Your task to perform on an android device: Show me the alarms in the clock app Image 0: 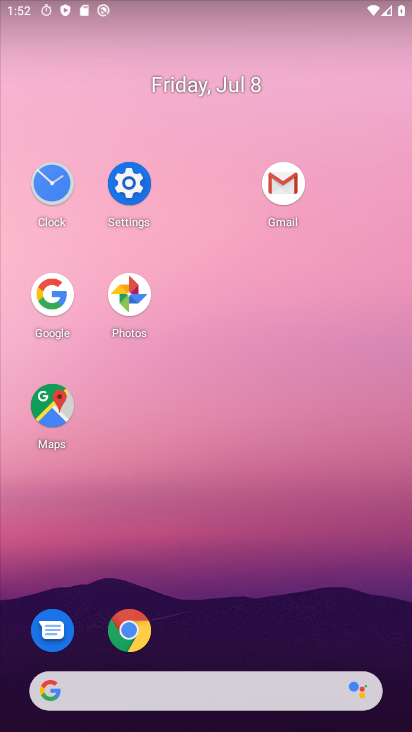
Step 0: click (41, 184)
Your task to perform on an android device: Show me the alarms in the clock app Image 1: 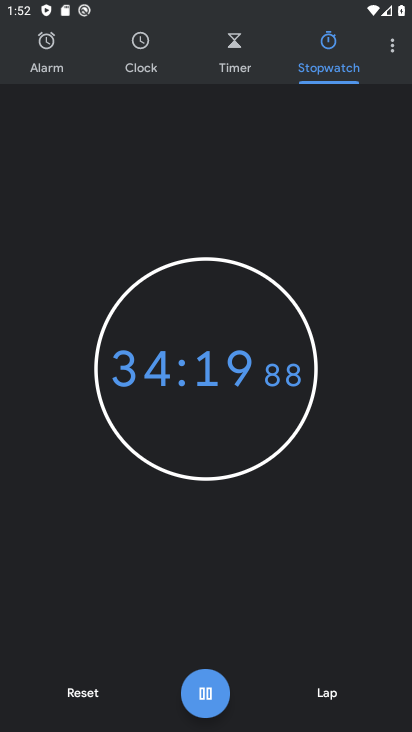
Step 1: click (56, 50)
Your task to perform on an android device: Show me the alarms in the clock app Image 2: 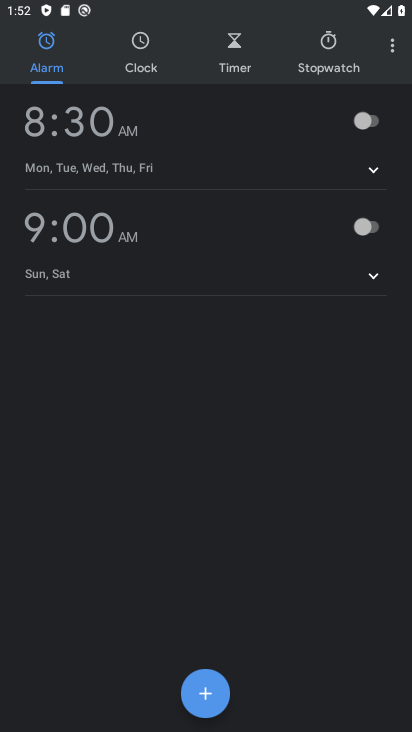
Step 2: task complete